Your task to perform on an android device: turn on javascript in the chrome app Image 0: 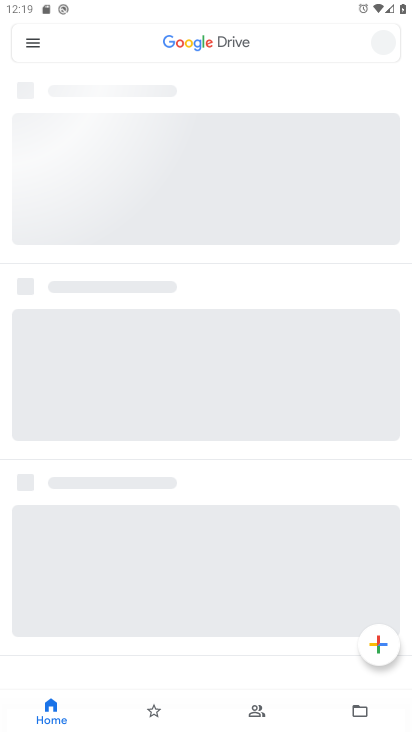
Step 0: press home button
Your task to perform on an android device: turn on javascript in the chrome app Image 1: 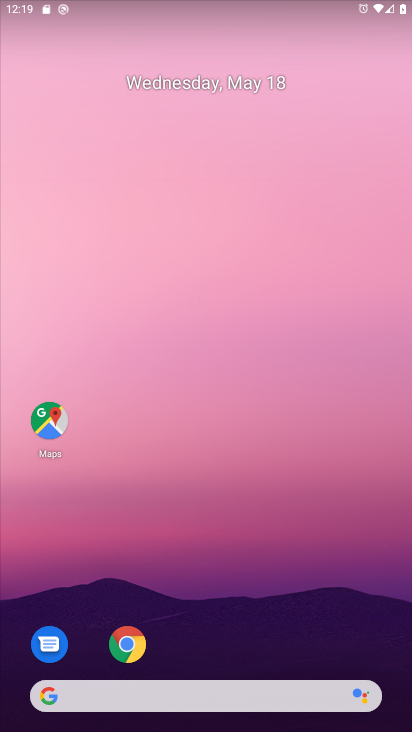
Step 1: drag from (223, 646) to (218, 363)
Your task to perform on an android device: turn on javascript in the chrome app Image 2: 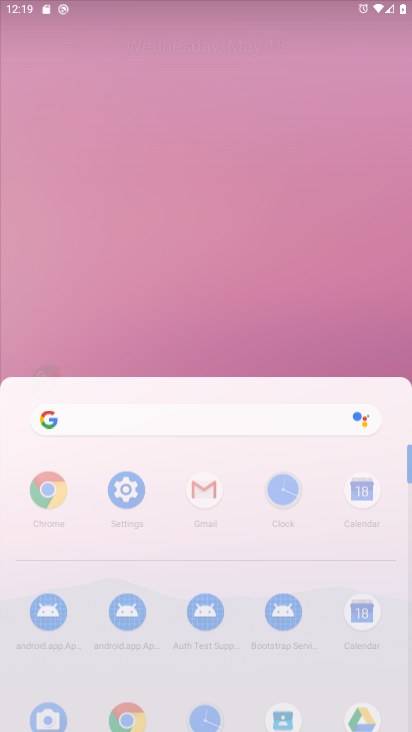
Step 2: click (262, 51)
Your task to perform on an android device: turn on javascript in the chrome app Image 3: 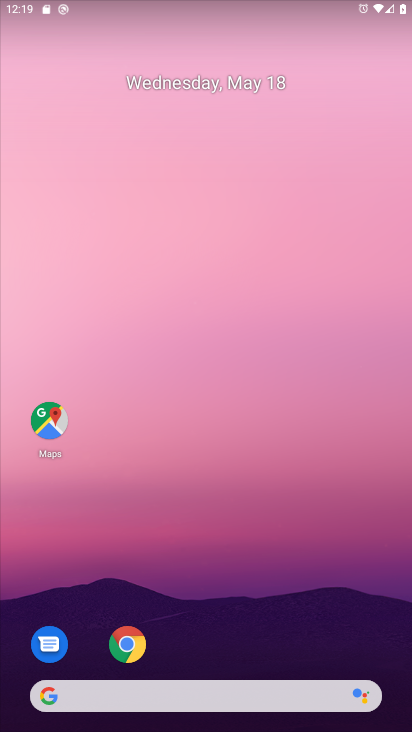
Step 3: drag from (216, 653) to (223, 144)
Your task to perform on an android device: turn on javascript in the chrome app Image 4: 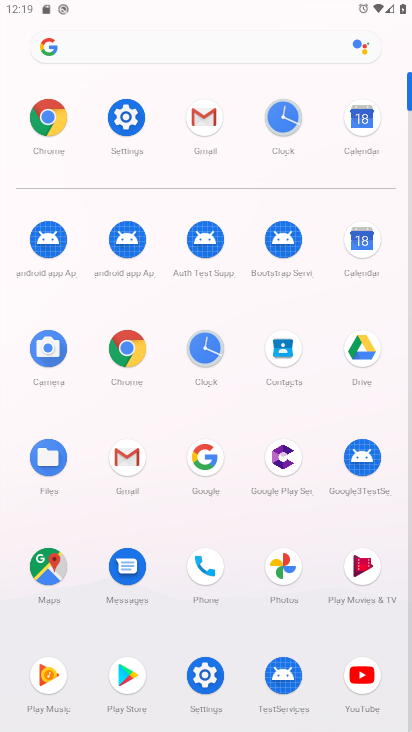
Step 4: click (54, 117)
Your task to perform on an android device: turn on javascript in the chrome app Image 5: 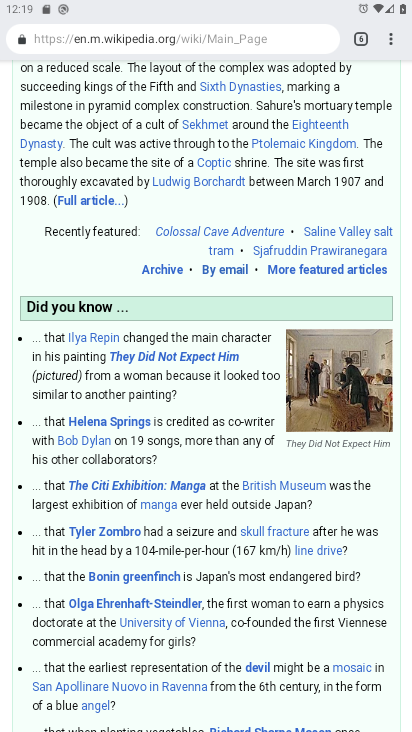
Step 5: click (392, 28)
Your task to perform on an android device: turn on javascript in the chrome app Image 6: 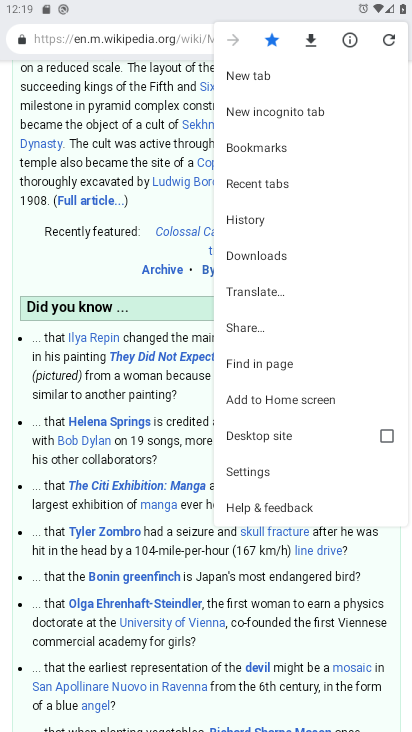
Step 6: click (273, 468)
Your task to perform on an android device: turn on javascript in the chrome app Image 7: 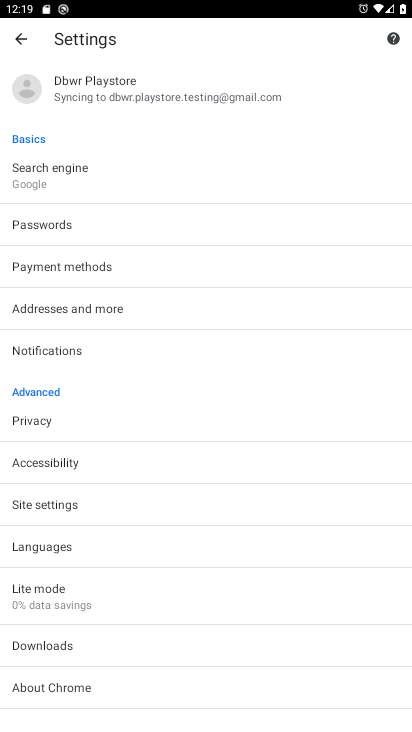
Step 7: click (88, 502)
Your task to perform on an android device: turn on javascript in the chrome app Image 8: 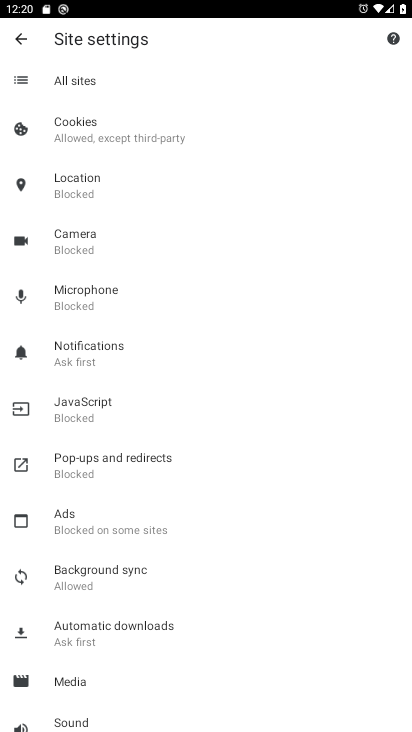
Step 8: click (110, 407)
Your task to perform on an android device: turn on javascript in the chrome app Image 9: 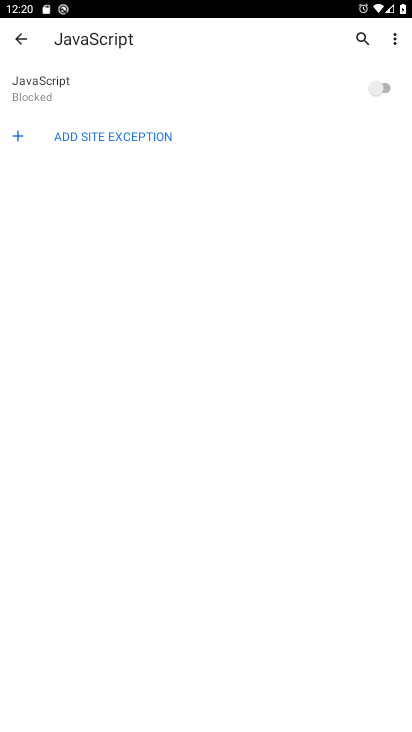
Step 9: click (380, 87)
Your task to perform on an android device: turn on javascript in the chrome app Image 10: 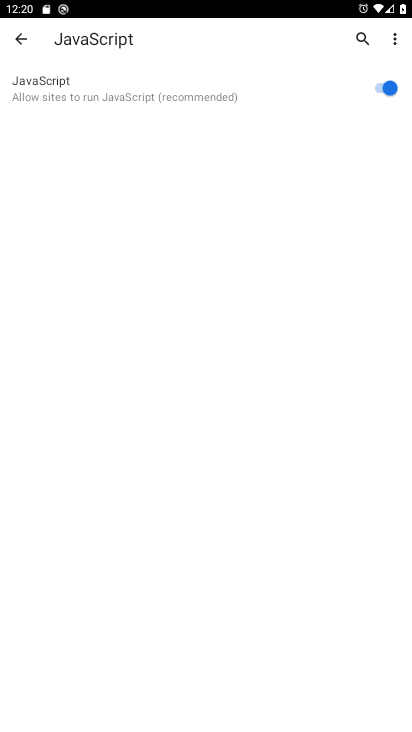
Step 10: task complete